Your task to perform on an android device: change the clock style Image 0: 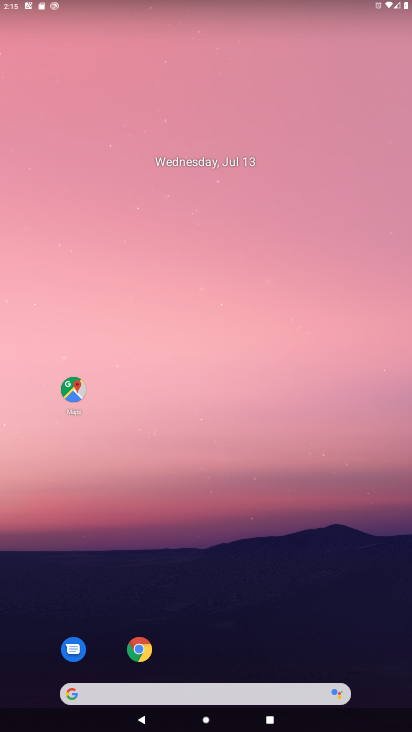
Step 0: drag from (240, 631) to (229, 17)
Your task to perform on an android device: change the clock style Image 1: 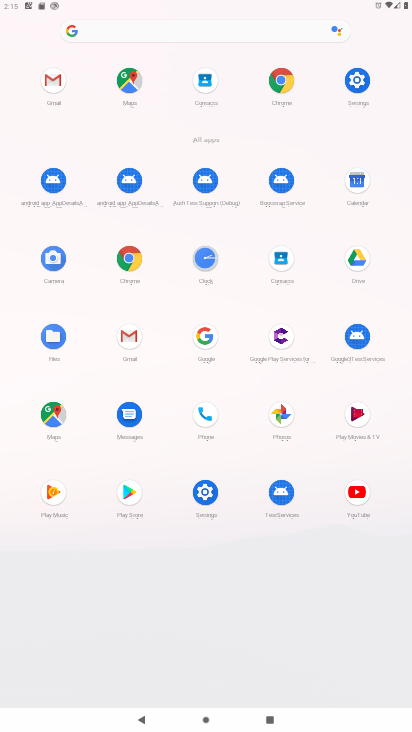
Step 1: click (201, 258)
Your task to perform on an android device: change the clock style Image 2: 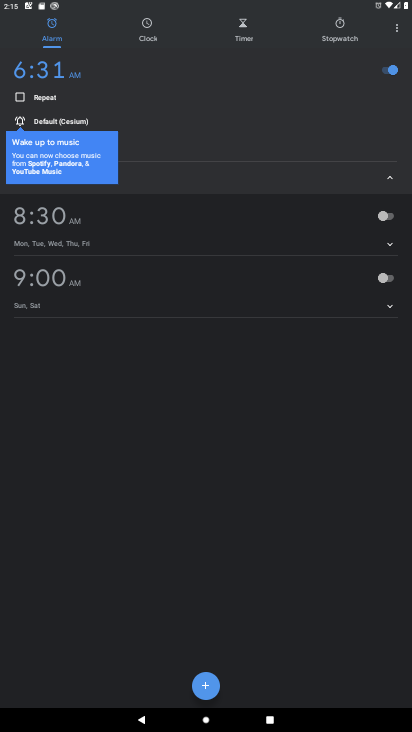
Step 2: click (393, 34)
Your task to perform on an android device: change the clock style Image 3: 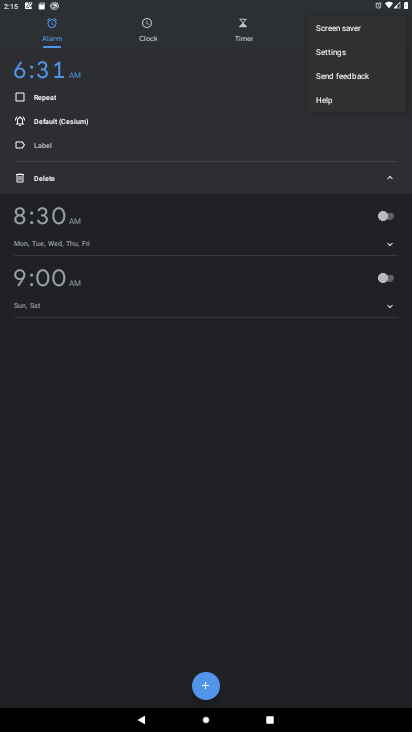
Step 3: click (349, 51)
Your task to perform on an android device: change the clock style Image 4: 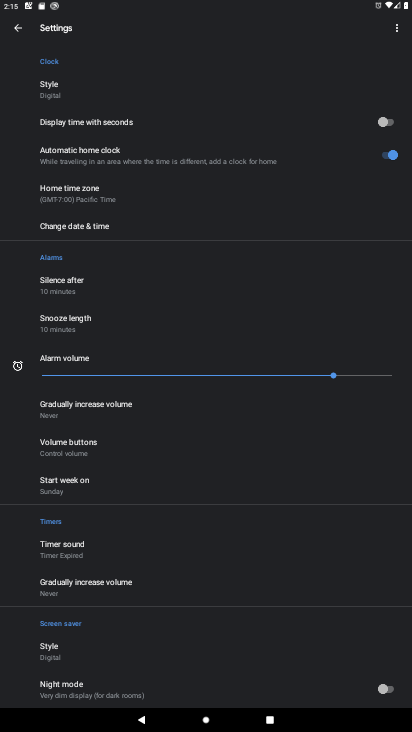
Step 4: click (68, 90)
Your task to perform on an android device: change the clock style Image 5: 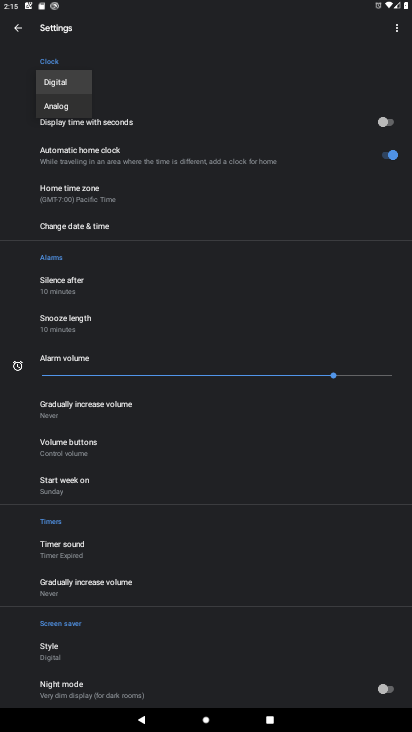
Step 5: click (73, 114)
Your task to perform on an android device: change the clock style Image 6: 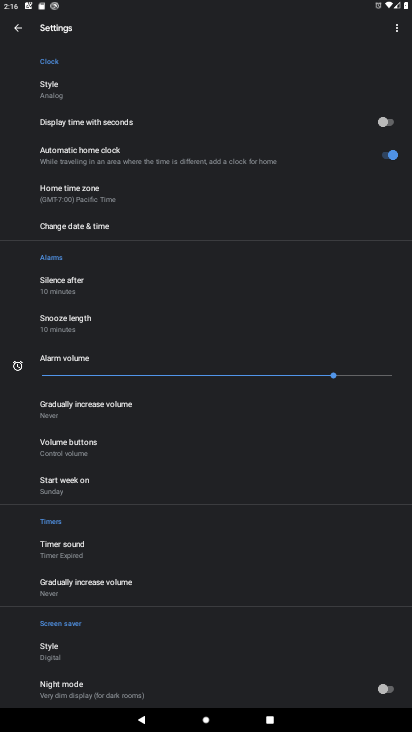
Step 6: task complete